Your task to perform on an android device: open device folders in google photos Image 0: 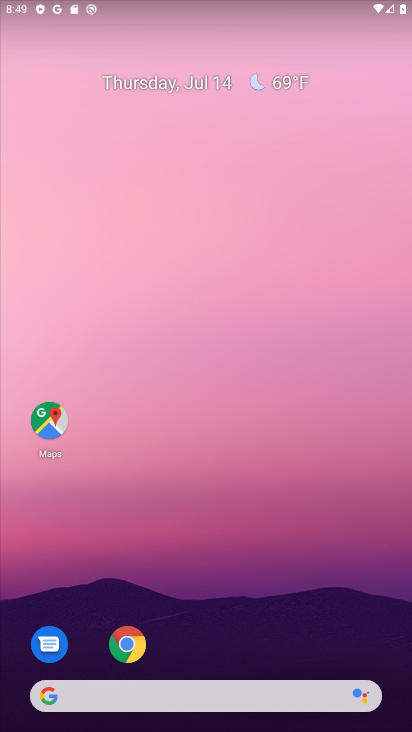
Step 0: drag from (173, 670) to (299, 94)
Your task to perform on an android device: open device folders in google photos Image 1: 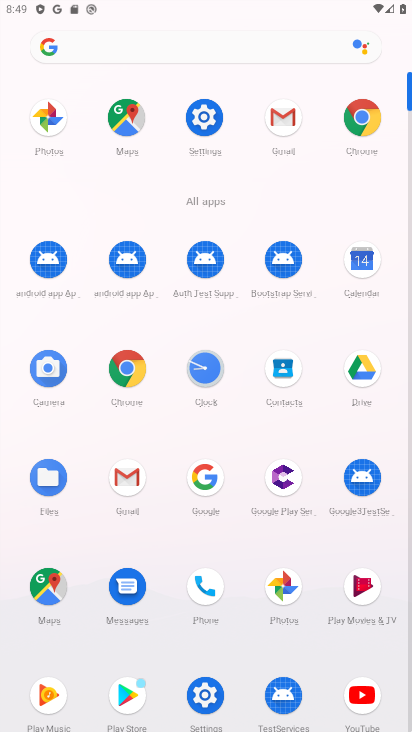
Step 1: click (34, 121)
Your task to perform on an android device: open device folders in google photos Image 2: 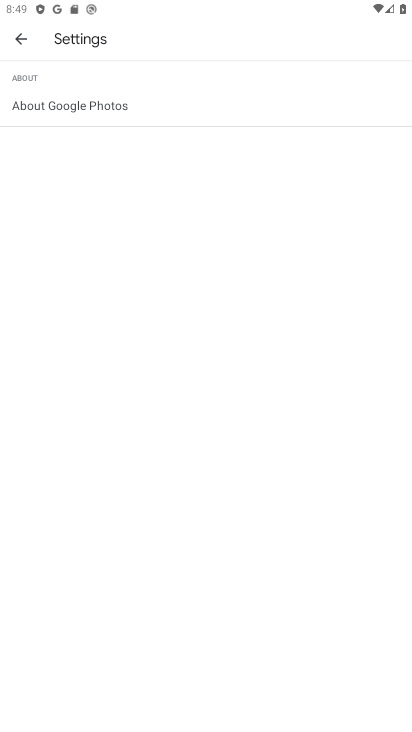
Step 2: click (15, 38)
Your task to perform on an android device: open device folders in google photos Image 3: 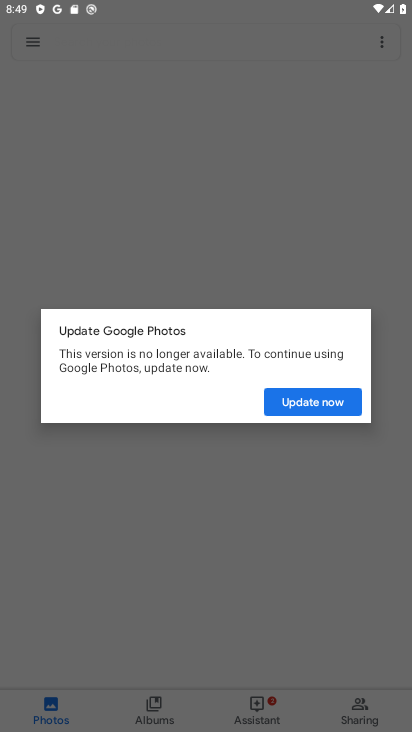
Step 3: click (15, 38)
Your task to perform on an android device: open device folders in google photos Image 4: 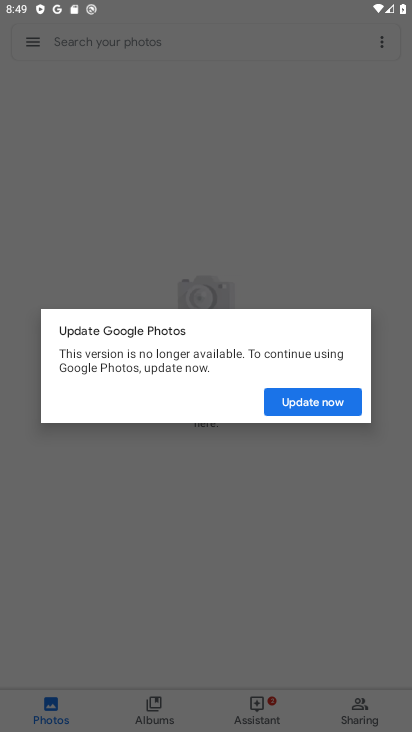
Step 4: click (309, 411)
Your task to perform on an android device: open device folders in google photos Image 5: 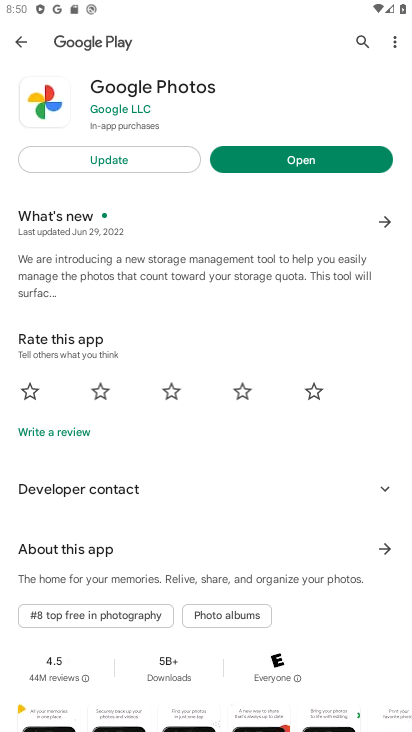
Step 5: click (299, 167)
Your task to perform on an android device: open device folders in google photos Image 6: 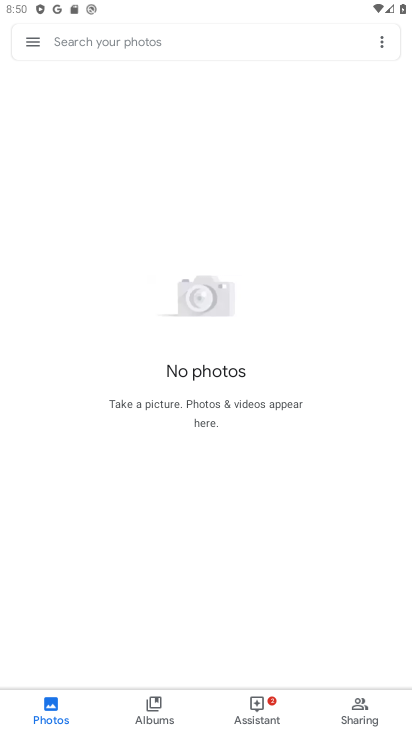
Step 6: click (21, 43)
Your task to perform on an android device: open device folders in google photos Image 7: 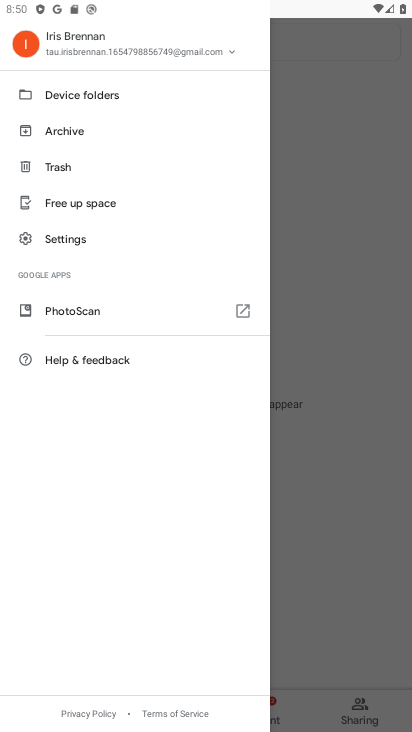
Step 7: click (131, 85)
Your task to perform on an android device: open device folders in google photos Image 8: 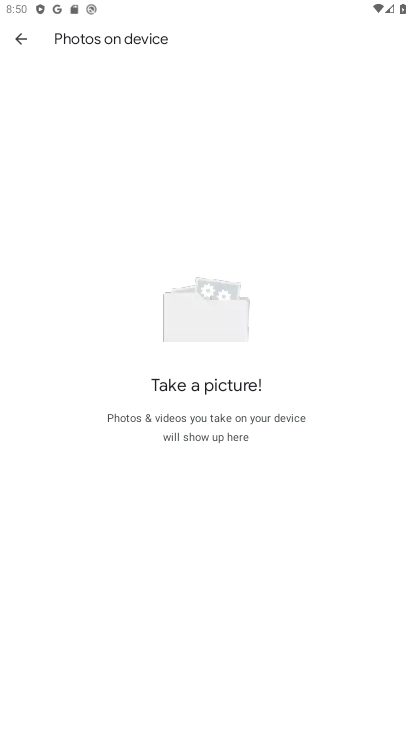
Step 8: task complete